Your task to perform on an android device: turn off wifi Image 0: 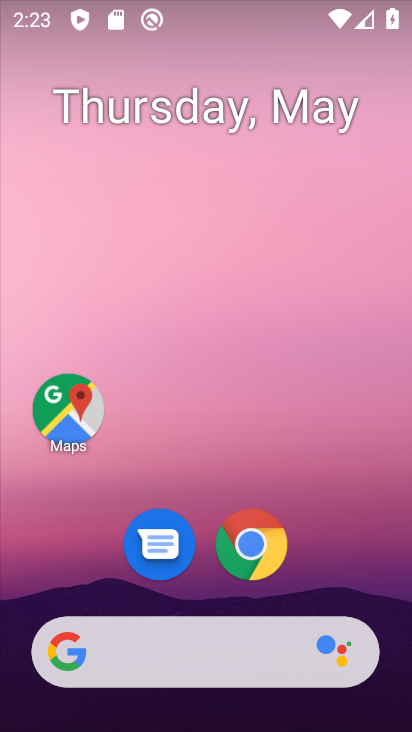
Step 0: drag from (138, 658) to (173, 186)
Your task to perform on an android device: turn off wifi Image 1: 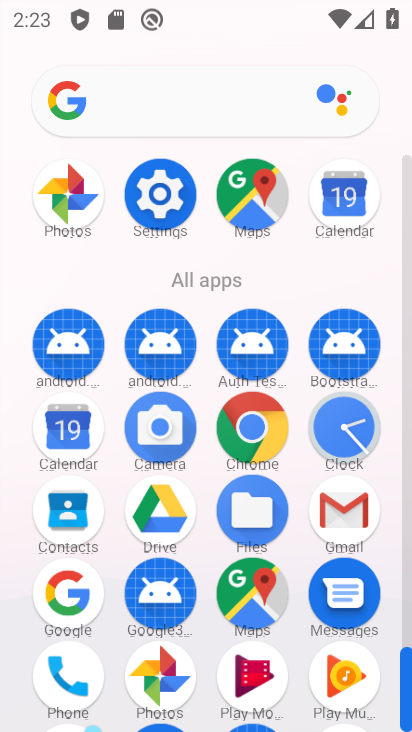
Step 1: click (175, 186)
Your task to perform on an android device: turn off wifi Image 2: 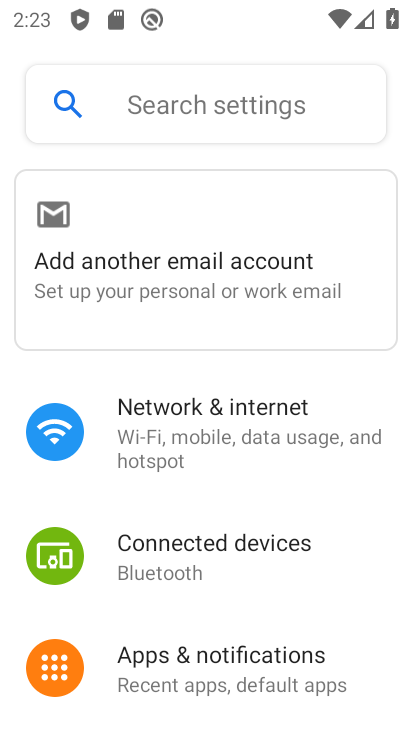
Step 2: click (256, 421)
Your task to perform on an android device: turn off wifi Image 3: 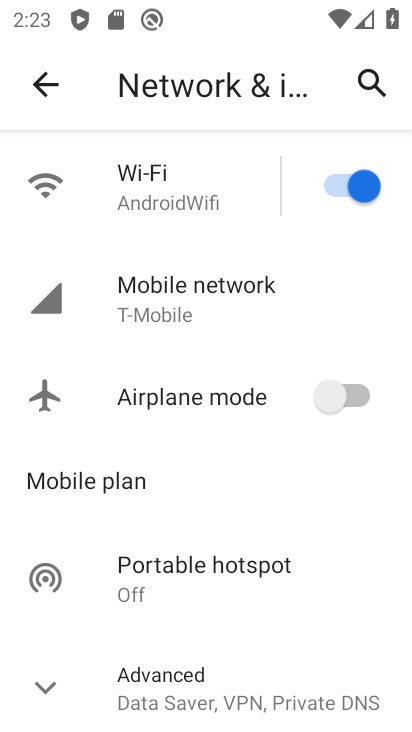
Step 3: click (353, 185)
Your task to perform on an android device: turn off wifi Image 4: 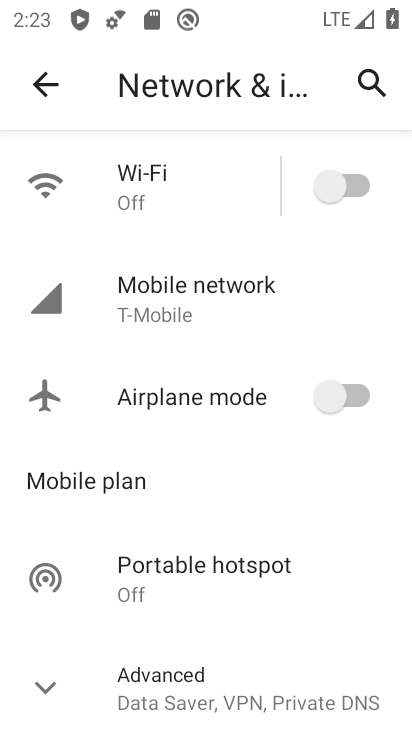
Step 4: task complete